Your task to perform on an android device: toggle show notifications on the lock screen Image 0: 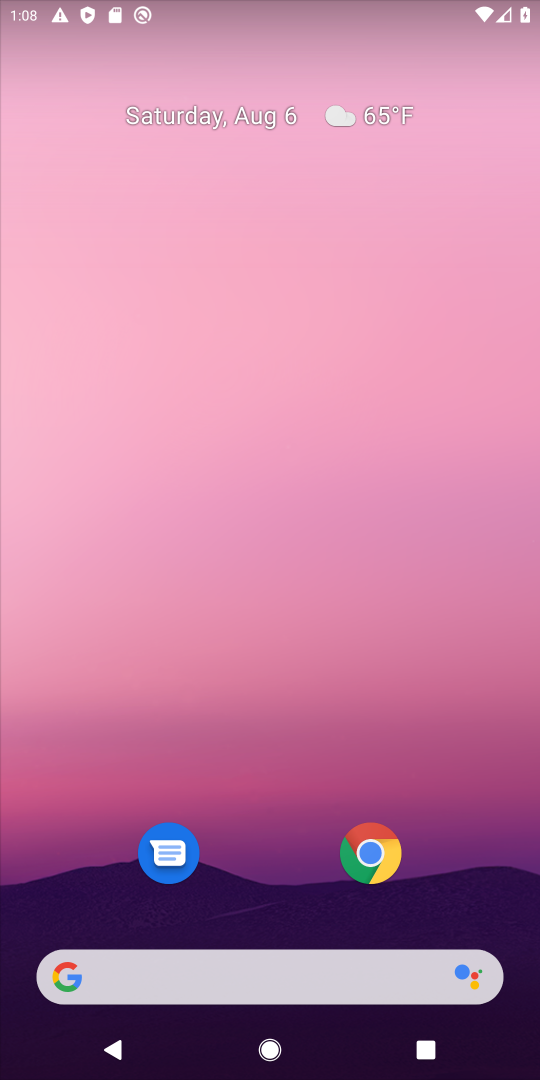
Step 0: drag from (509, 909) to (452, 281)
Your task to perform on an android device: toggle show notifications on the lock screen Image 1: 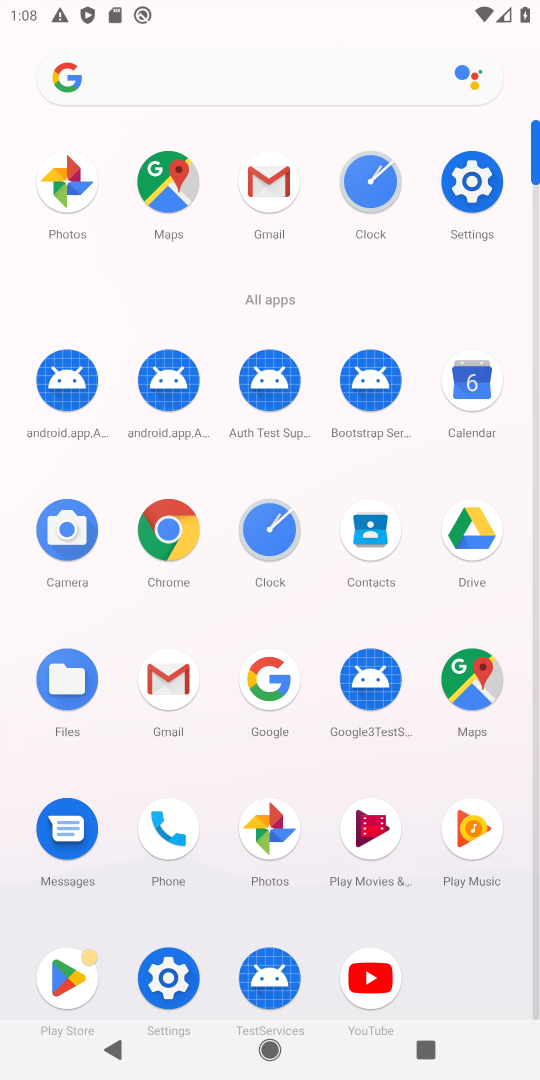
Step 1: click (171, 975)
Your task to perform on an android device: toggle show notifications on the lock screen Image 2: 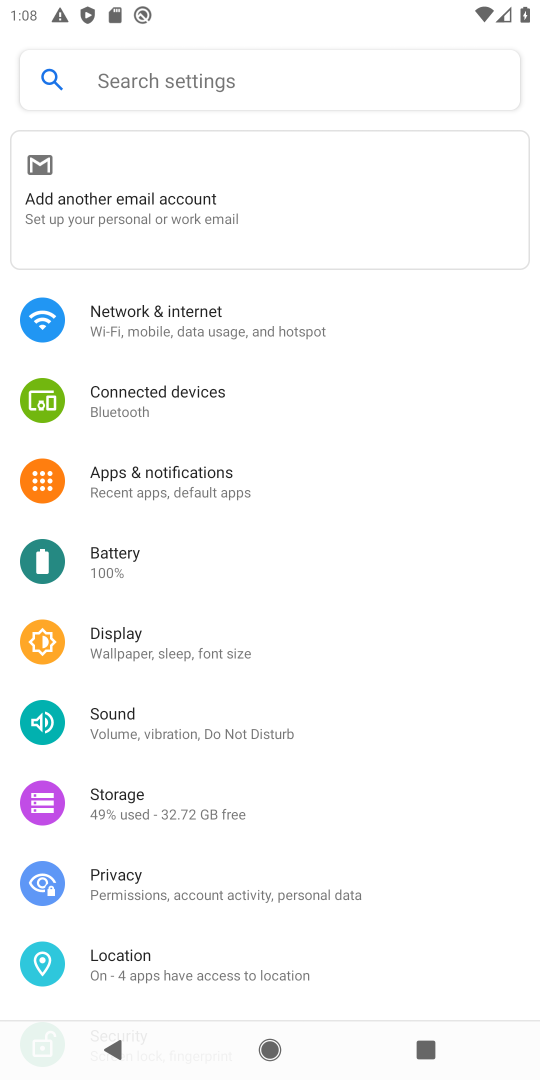
Step 2: click (162, 474)
Your task to perform on an android device: toggle show notifications on the lock screen Image 3: 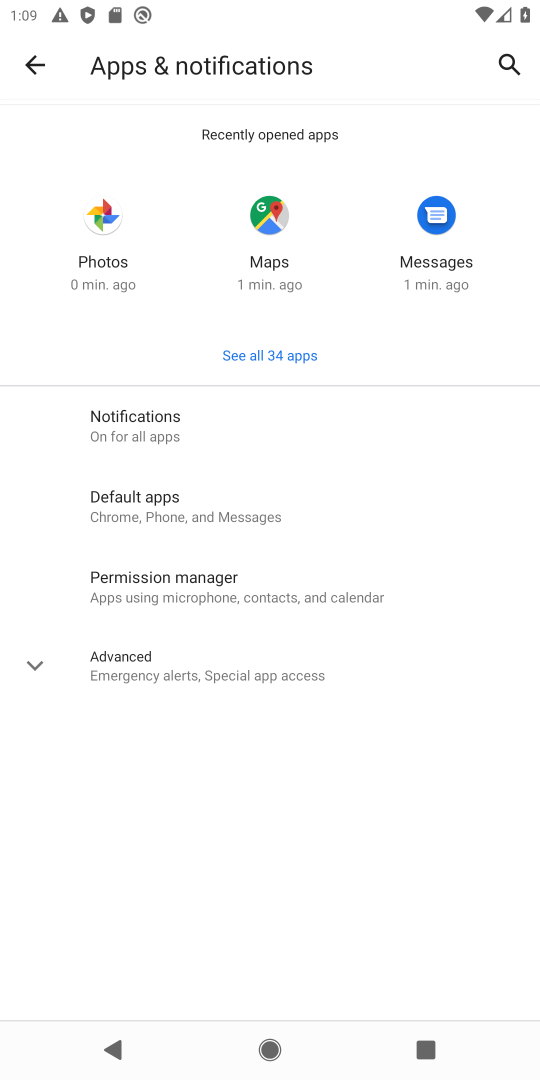
Step 3: click (129, 422)
Your task to perform on an android device: toggle show notifications on the lock screen Image 4: 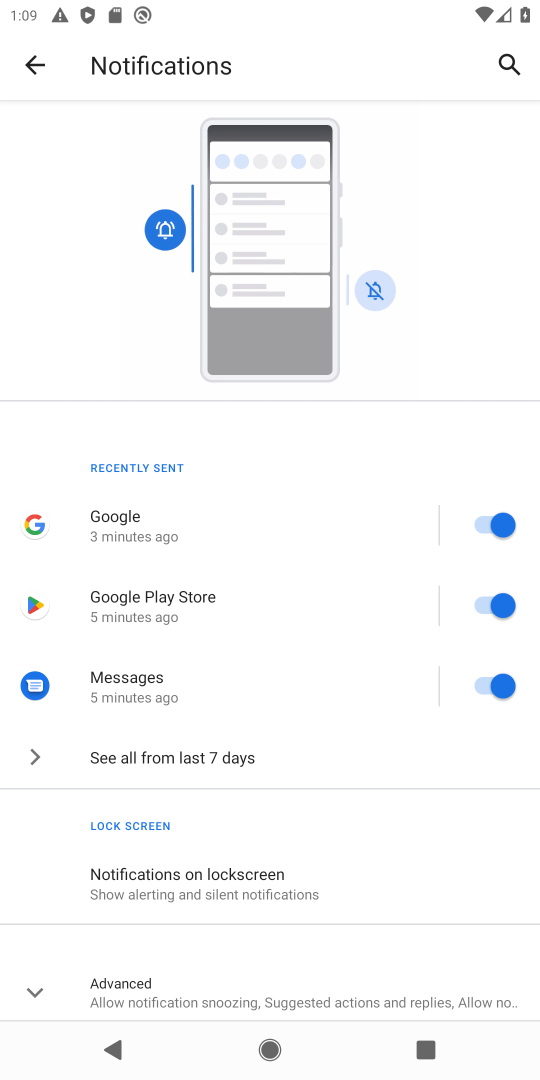
Step 4: click (217, 869)
Your task to perform on an android device: toggle show notifications on the lock screen Image 5: 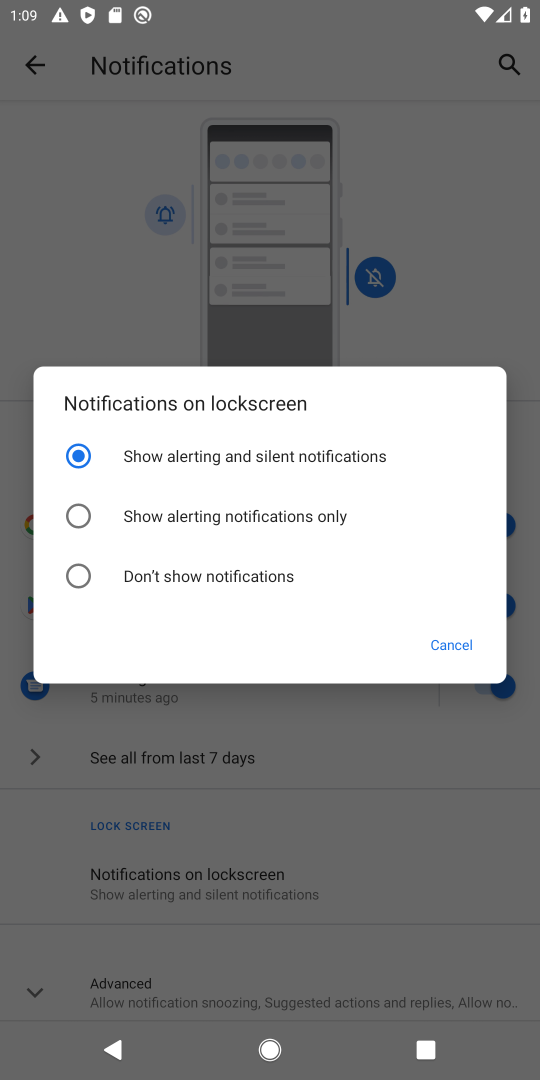
Step 5: click (79, 515)
Your task to perform on an android device: toggle show notifications on the lock screen Image 6: 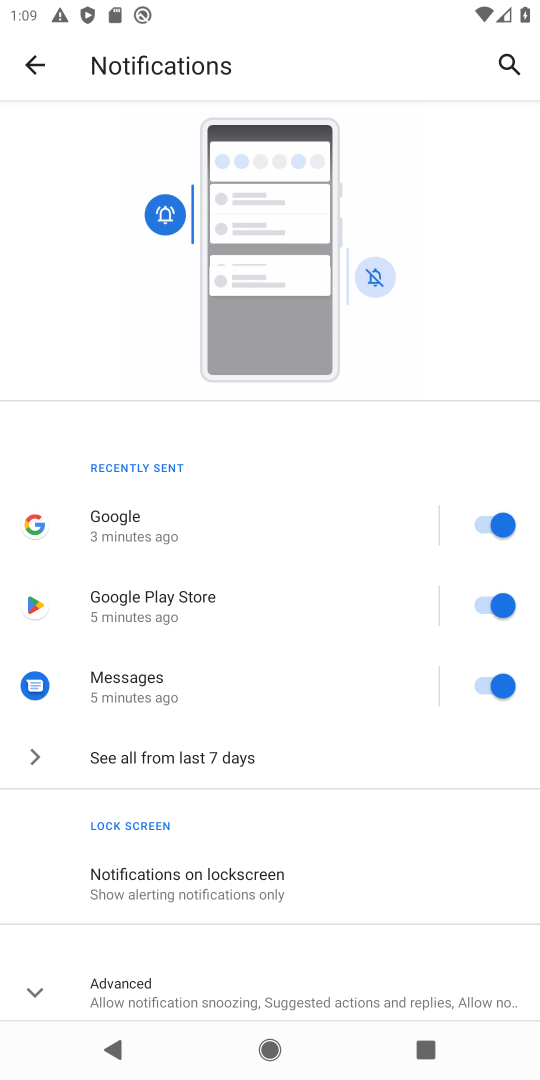
Step 6: task complete